Your task to perform on an android device: Is it going to rain this weekend? Image 0: 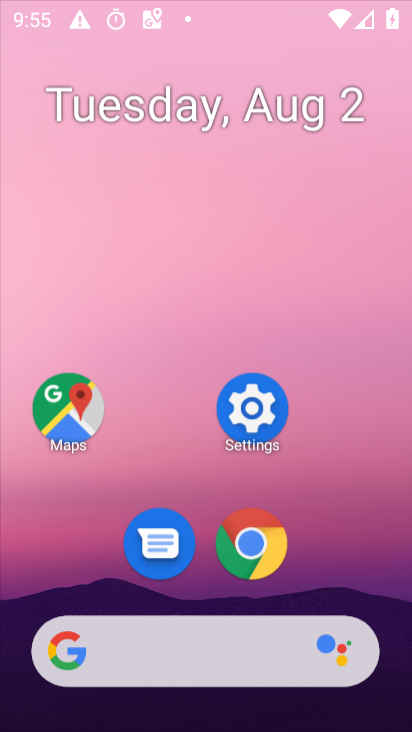
Step 0: press home button
Your task to perform on an android device: Is it going to rain this weekend? Image 1: 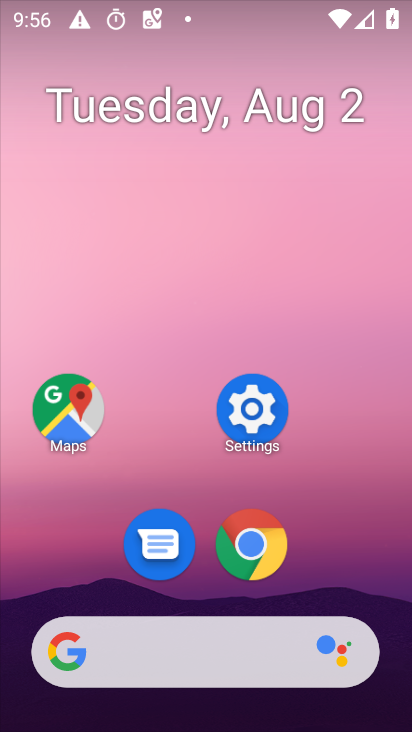
Step 1: click (146, 640)
Your task to perform on an android device: Is it going to rain this weekend? Image 2: 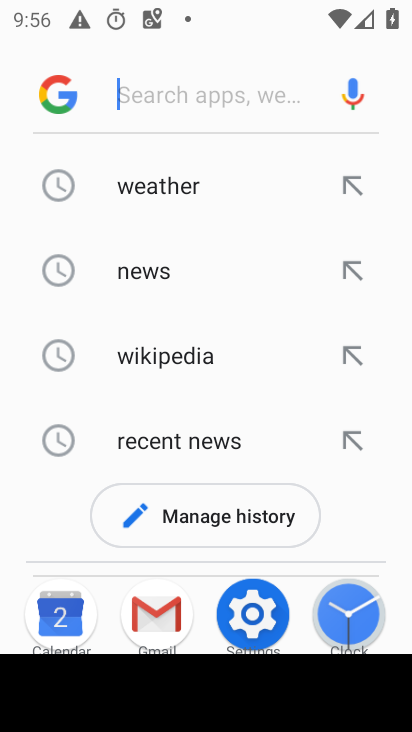
Step 2: click (148, 182)
Your task to perform on an android device: Is it going to rain this weekend? Image 3: 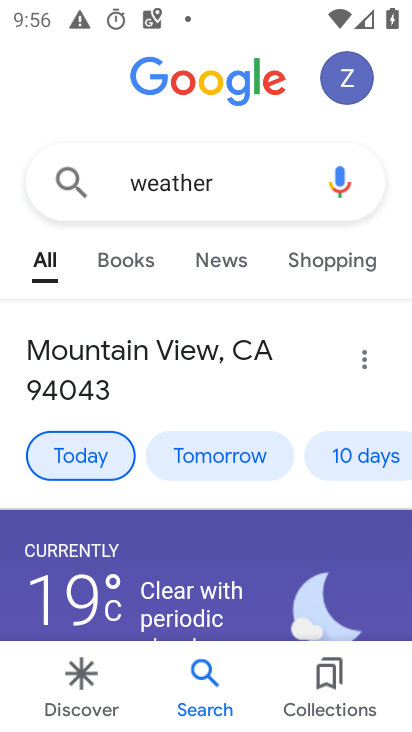
Step 3: click (359, 458)
Your task to perform on an android device: Is it going to rain this weekend? Image 4: 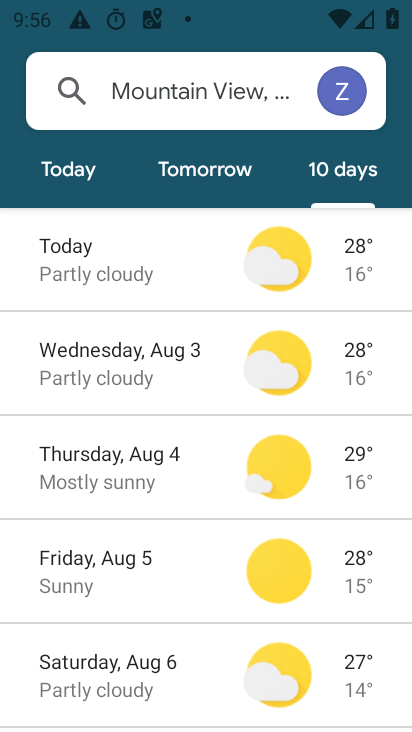
Step 4: drag from (172, 600) to (265, 307)
Your task to perform on an android device: Is it going to rain this weekend? Image 5: 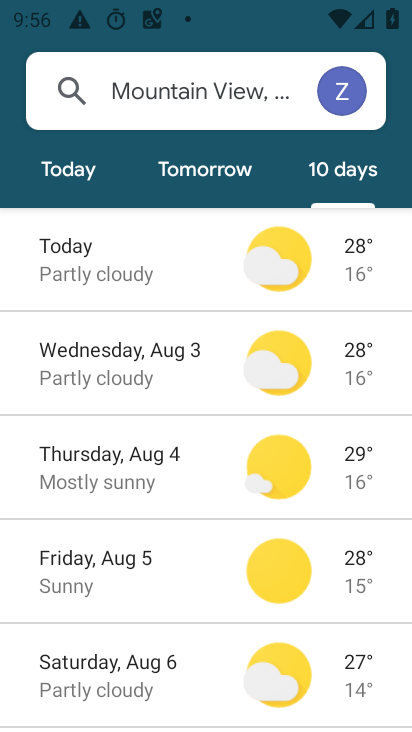
Step 5: drag from (240, 554) to (217, 282)
Your task to perform on an android device: Is it going to rain this weekend? Image 6: 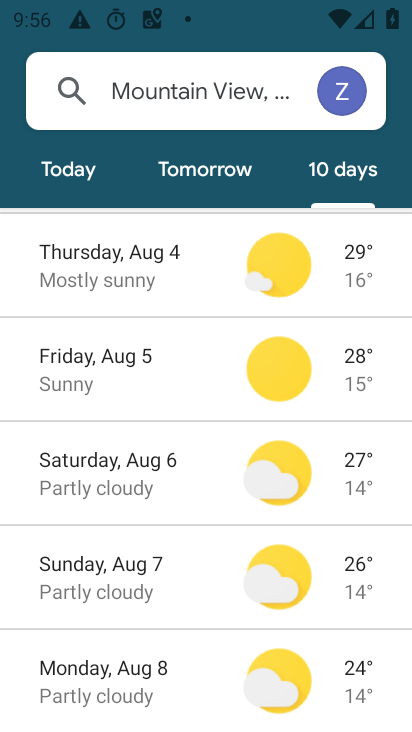
Step 6: click (101, 476)
Your task to perform on an android device: Is it going to rain this weekend? Image 7: 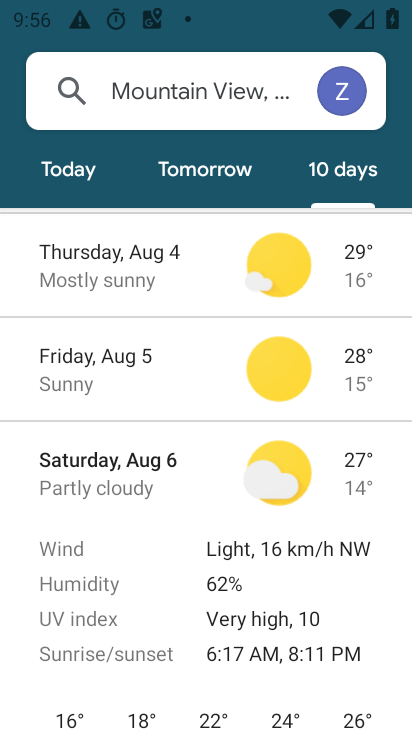
Step 7: task complete